Your task to perform on an android device: open wifi settings Image 0: 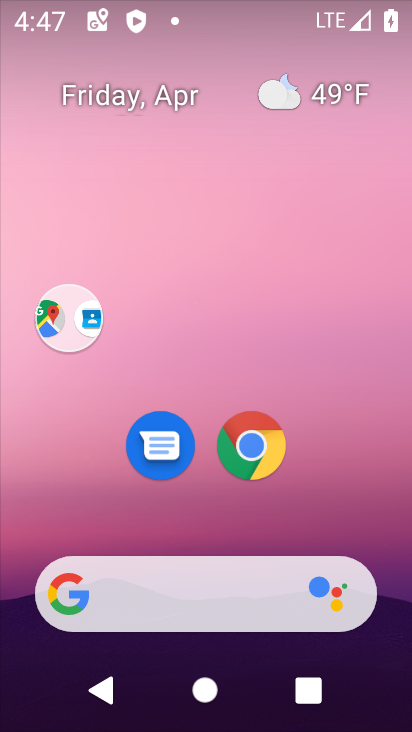
Step 0: drag from (344, 398) to (359, 66)
Your task to perform on an android device: open wifi settings Image 1: 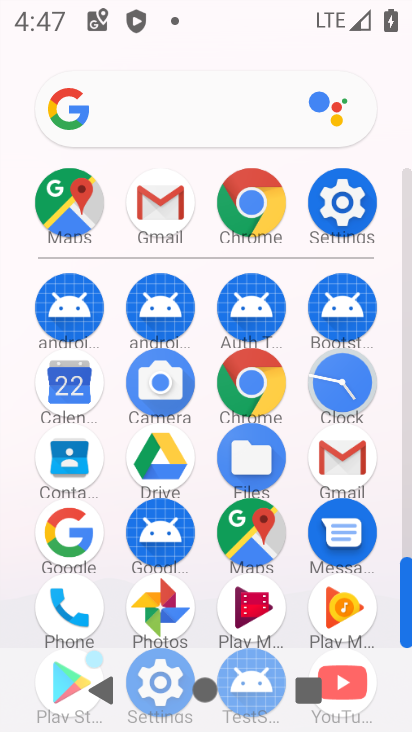
Step 1: drag from (193, 574) to (239, 283)
Your task to perform on an android device: open wifi settings Image 2: 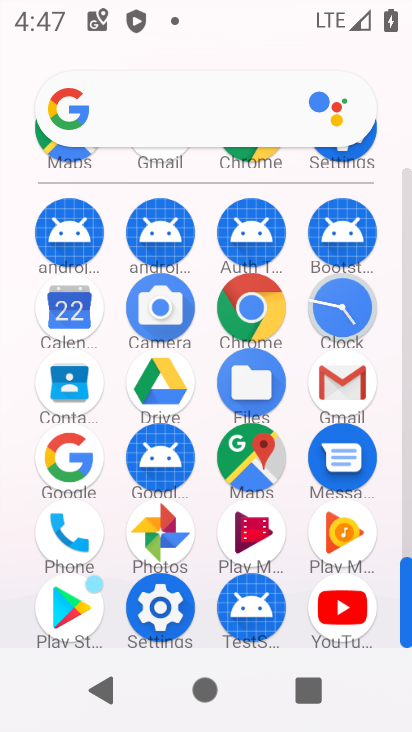
Step 2: click (156, 609)
Your task to perform on an android device: open wifi settings Image 3: 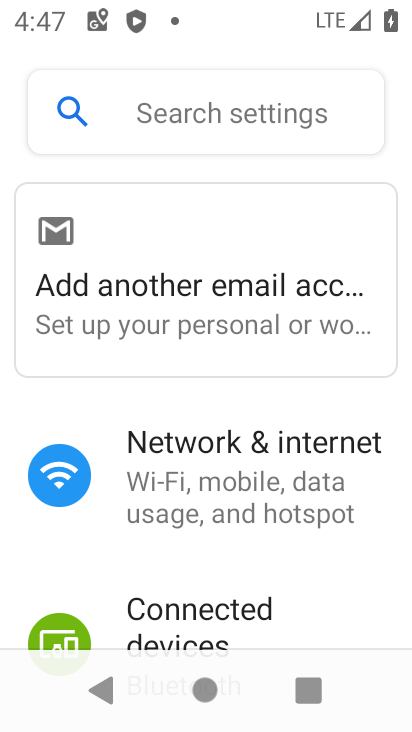
Step 3: click (271, 471)
Your task to perform on an android device: open wifi settings Image 4: 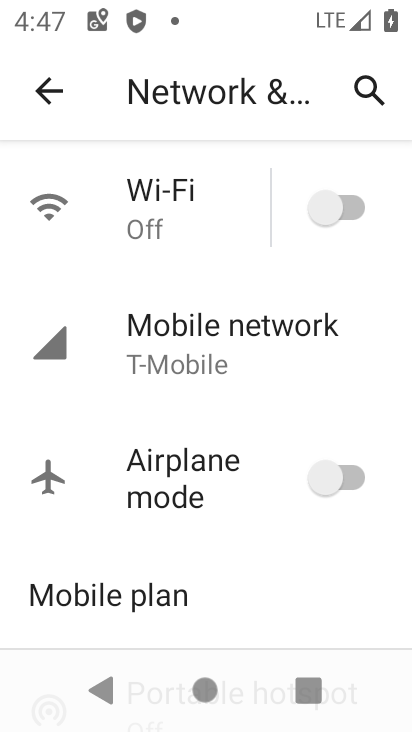
Step 4: click (187, 227)
Your task to perform on an android device: open wifi settings Image 5: 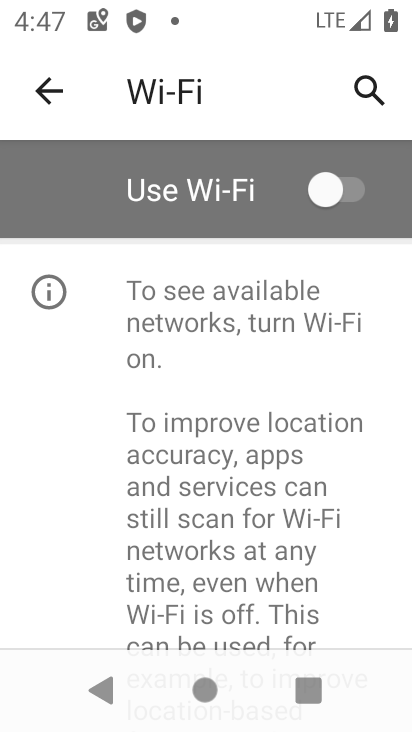
Step 5: task complete